Your task to perform on an android device: What is the recent news? Image 0: 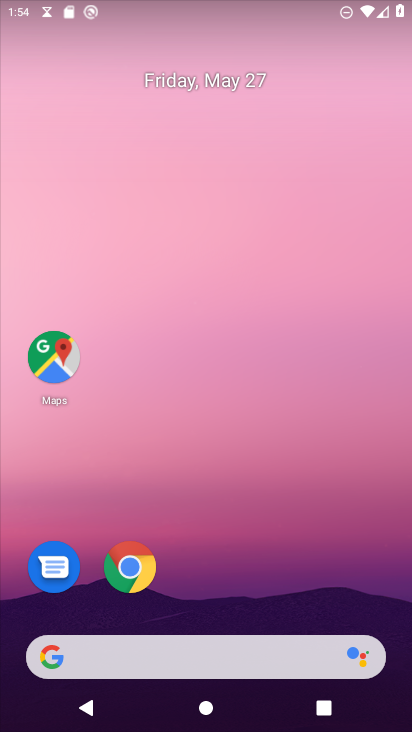
Step 0: click (276, 651)
Your task to perform on an android device: What is the recent news? Image 1: 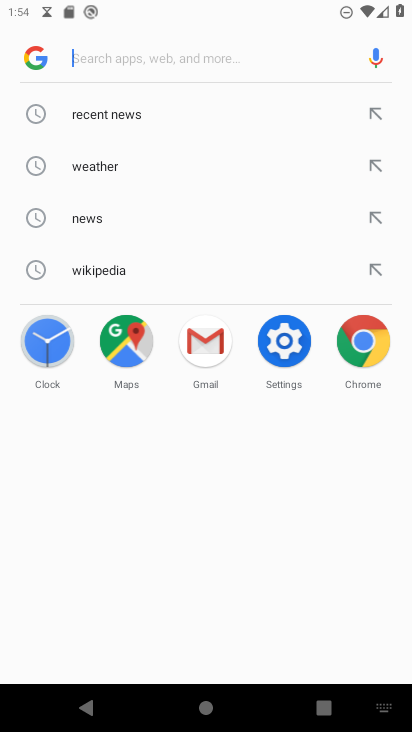
Step 1: click (137, 113)
Your task to perform on an android device: What is the recent news? Image 2: 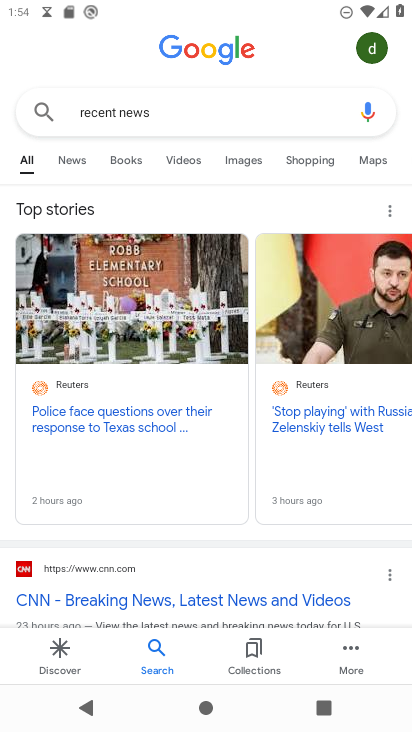
Step 2: task complete